Your task to perform on an android device: Go to calendar. Show me events next week Image 0: 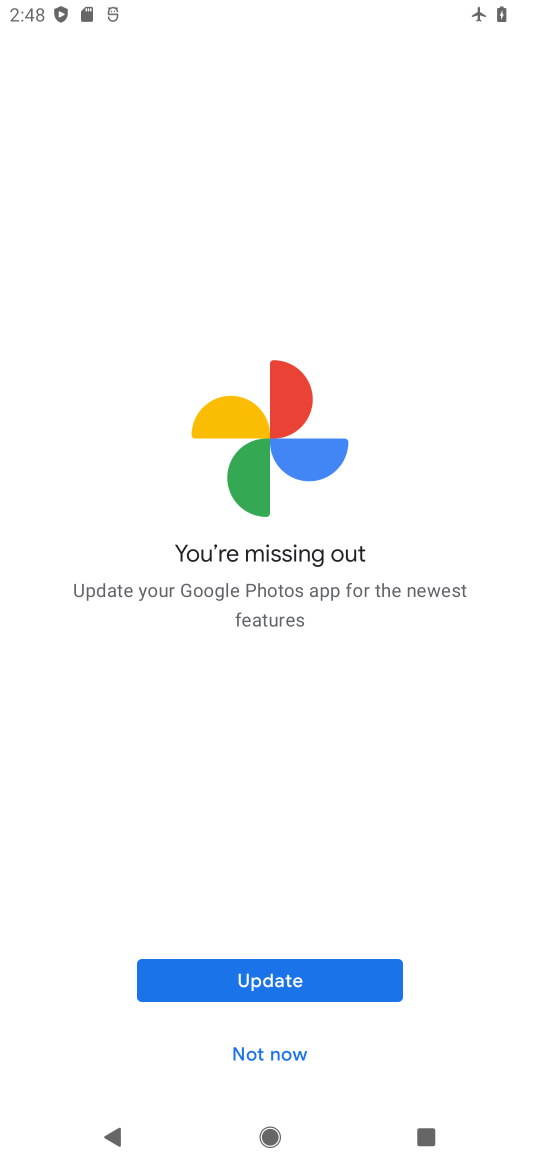
Step 0: press home button
Your task to perform on an android device: Go to calendar. Show me events next week Image 1: 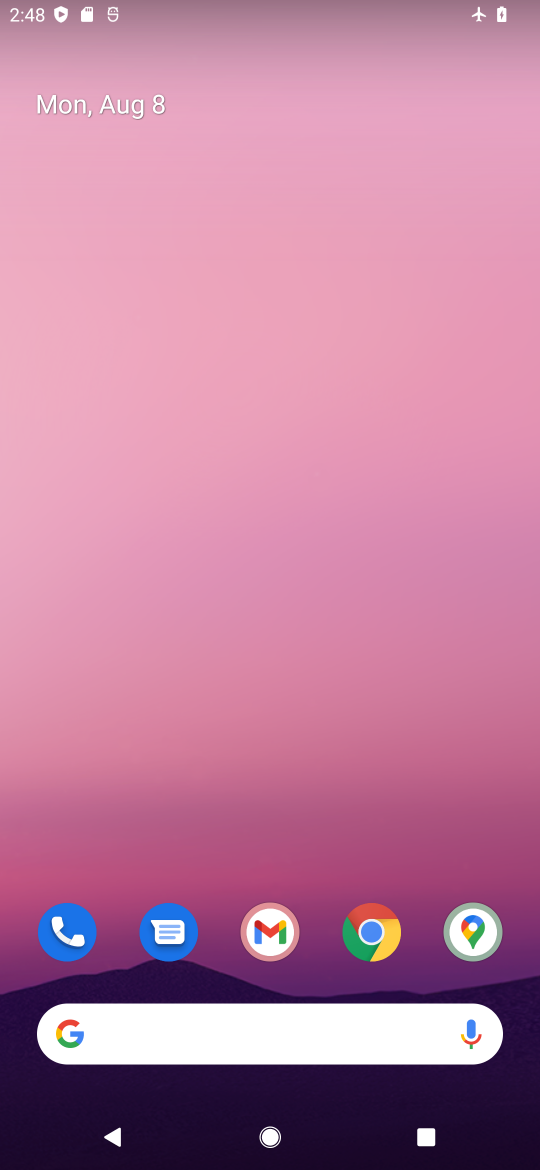
Step 1: drag from (328, 888) to (423, 27)
Your task to perform on an android device: Go to calendar. Show me events next week Image 2: 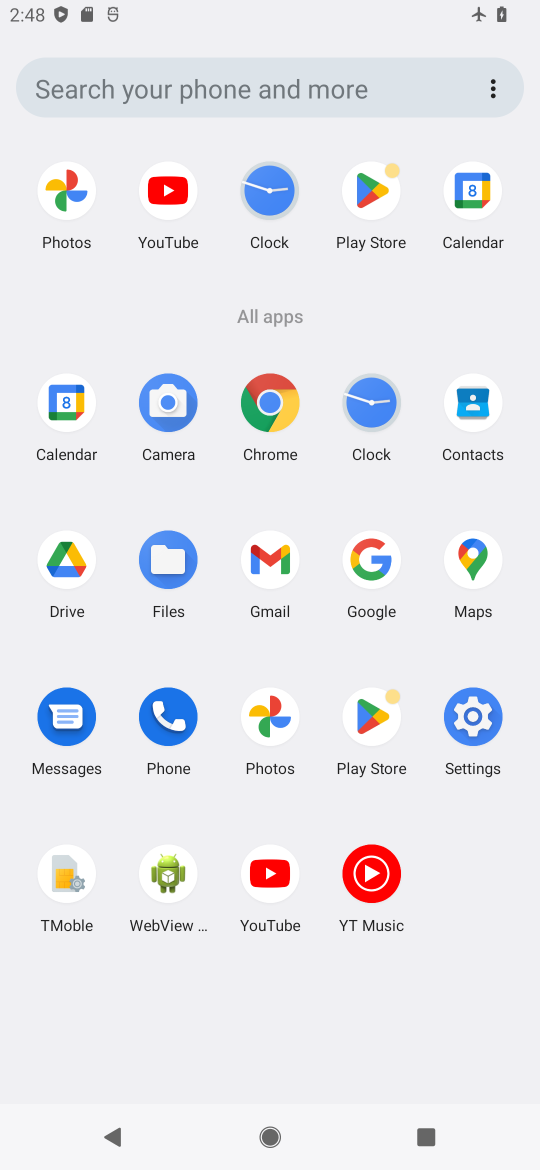
Step 2: click (481, 187)
Your task to perform on an android device: Go to calendar. Show me events next week Image 3: 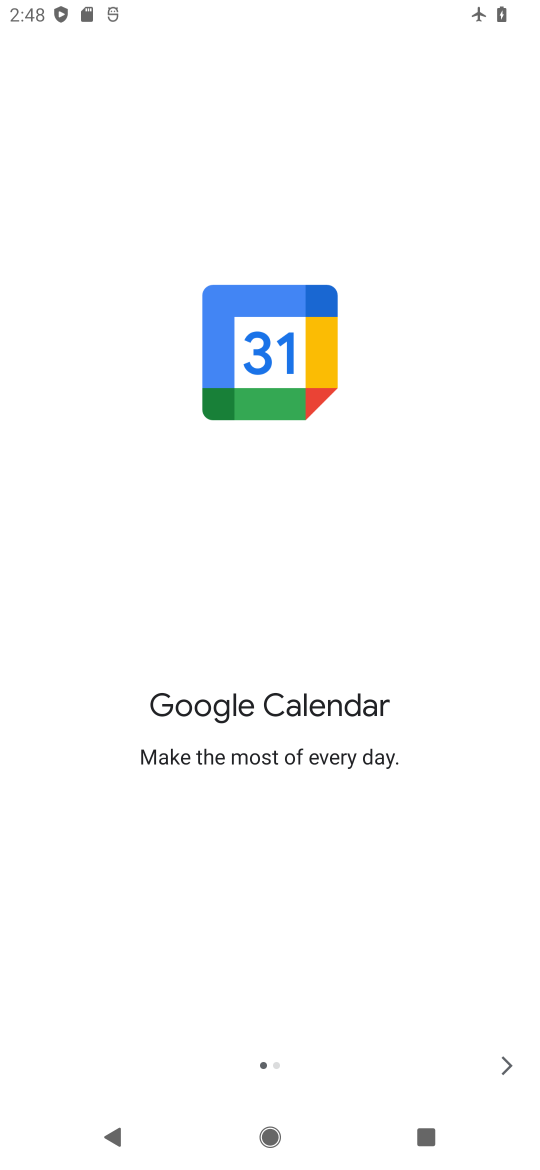
Step 3: click (508, 1065)
Your task to perform on an android device: Go to calendar. Show me events next week Image 4: 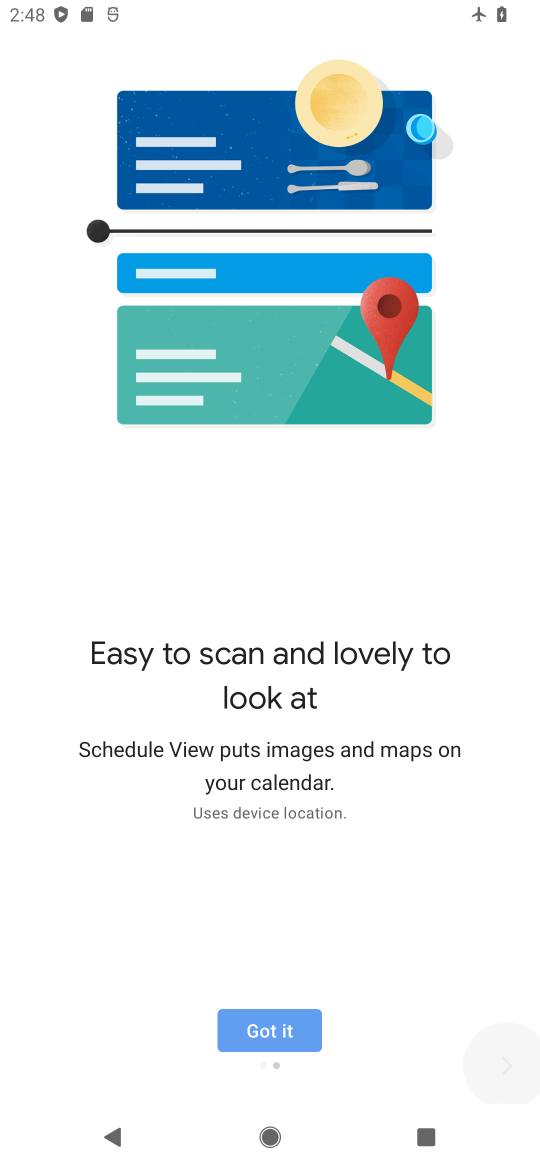
Step 4: click (508, 1065)
Your task to perform on an android device: Go to calendar. Show me events next week Image 5: 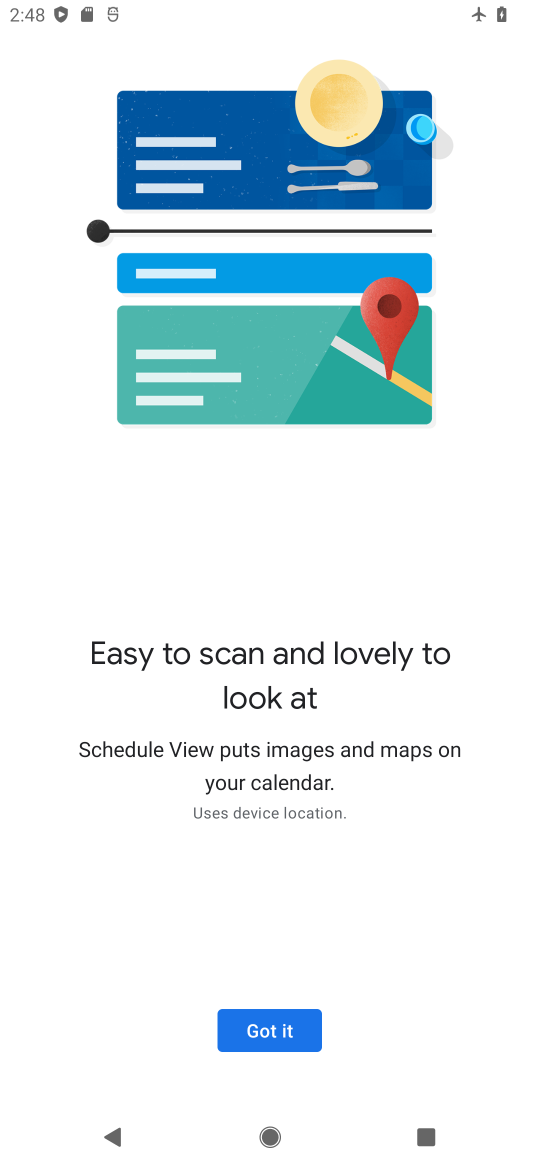
Step 5: click (278, 1030)
Your task to perform on an android device: Go to calendar. Show me events next week Image 6: 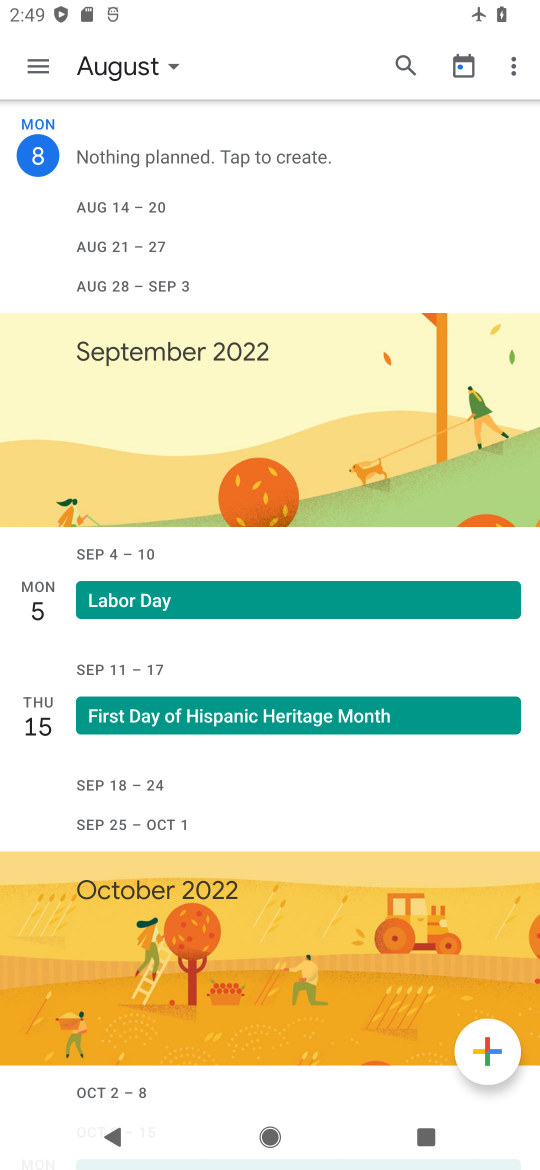
Step 6: click (34, 61)
Your task to perform on an android device: Go to calendar. Show me events next week Image 7: 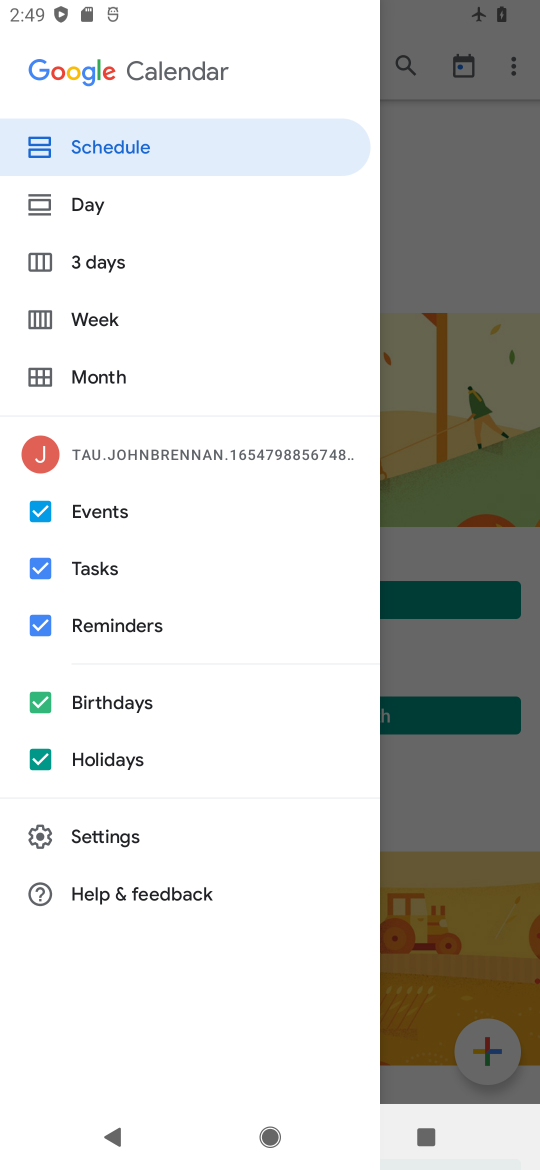
Step 7: click (97, 313)
Your task to perform on an android device: Go to calendar. Show me events next week Image 8: 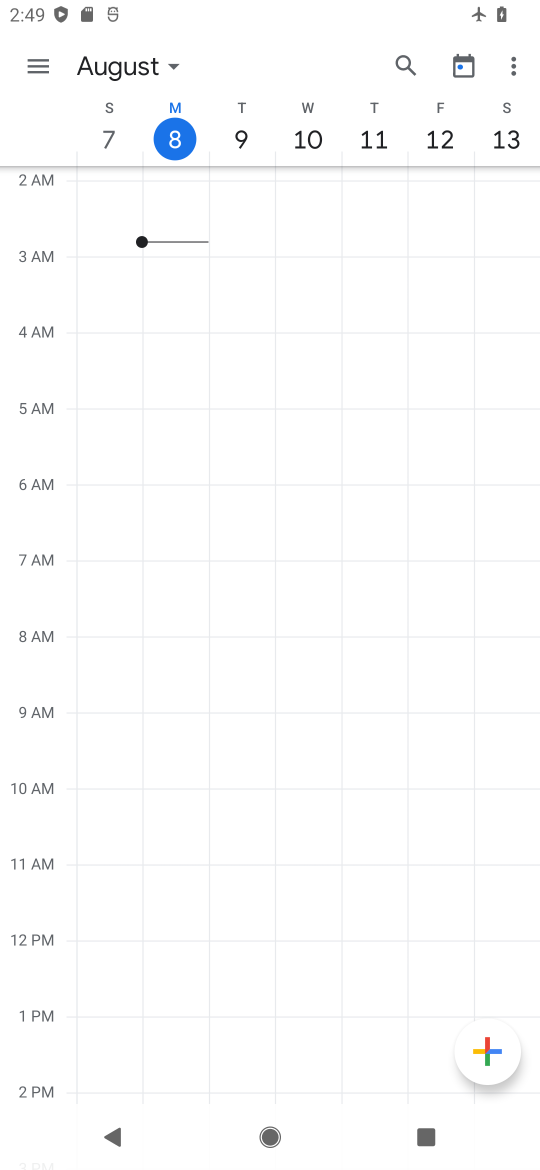
Step 8: task complete